Your task to perform on an android device: Open calendar and show me the third week of next month Image 0: 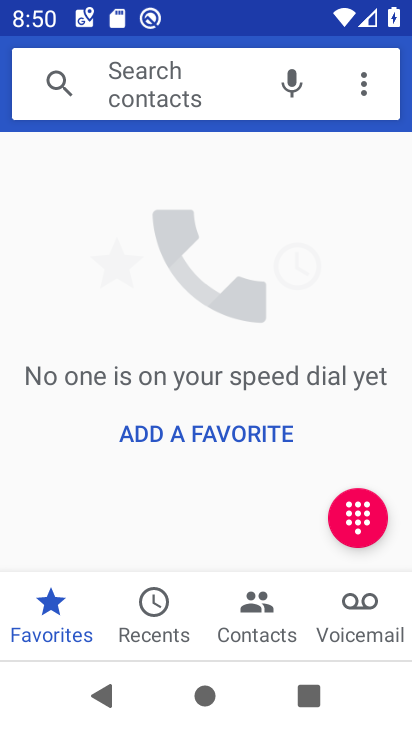
Step 0: press home button
Your task to perform on an android device: Open calendar and show me the third week of next month Image 1: 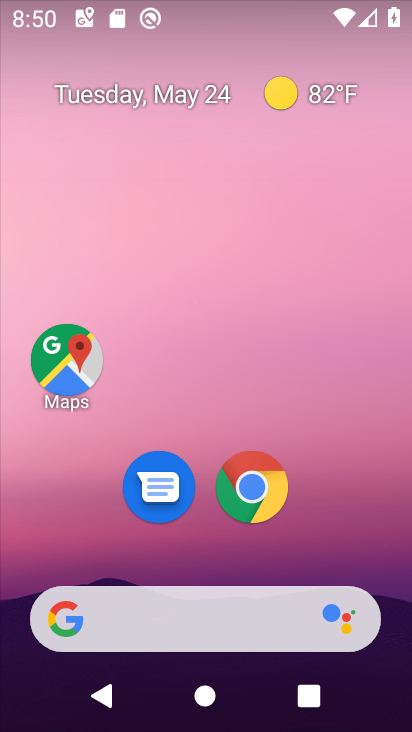
Step 1: drag from (365, 523) to (330, 81)
Your task to perform on an android device: Open calendar and show me the third week of next month Image 2: 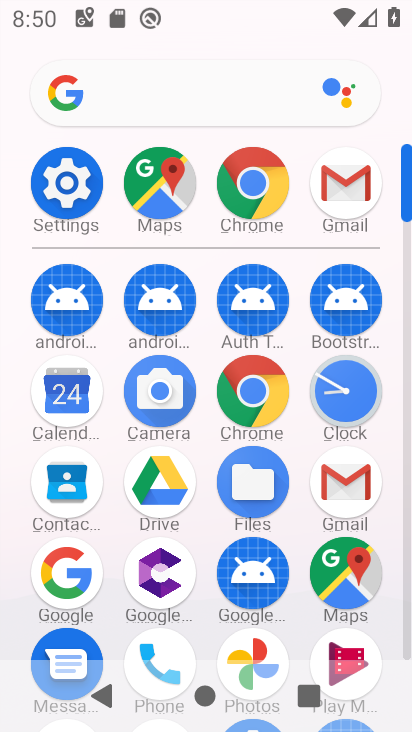
Step 2: click (66, 396)
Your task to perform on an android device: Open calendar and show me the third week of next month Image 3: 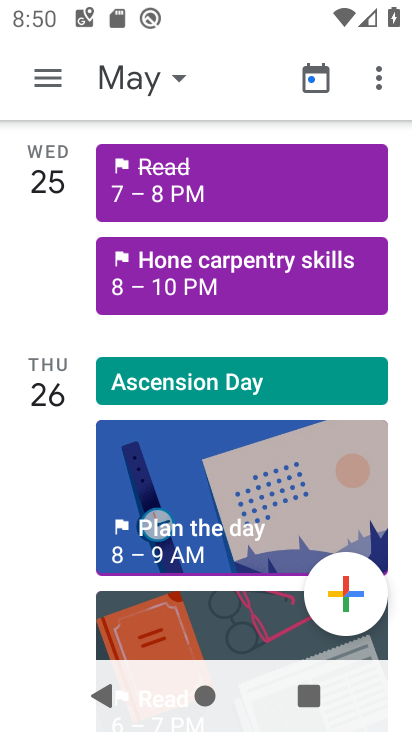
Step 3: click (117, 81)
Your task to perform on an android device: Open calendar and show me the third week of next month Image 4: 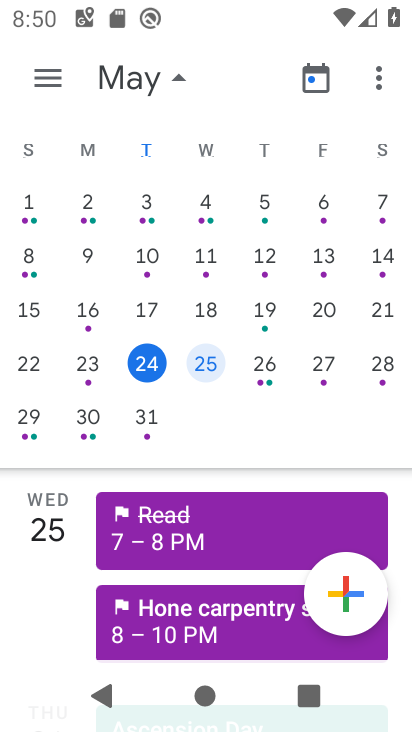
Step 4: click (152, 83)
Your task to perform on an android device: Open calendar and show me the third week of next month Image 5: 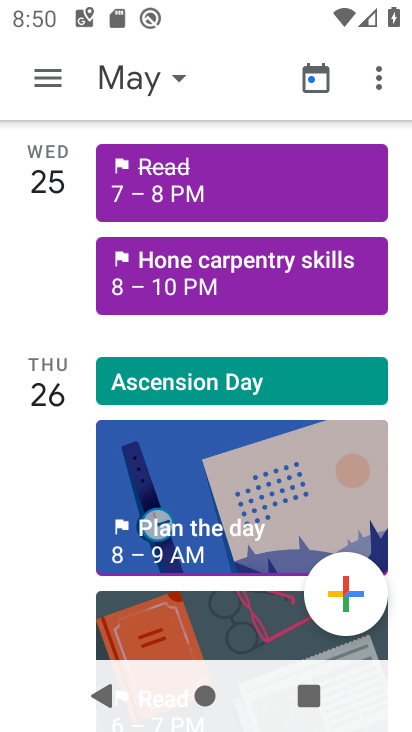
Step 5: click (132, 79)
Your task to perform on an android device: Open calendar and show me the third week of next month Image 6: 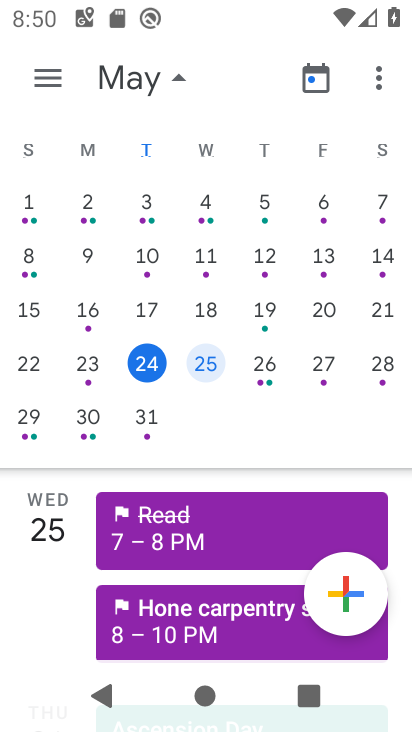
Step 6: drag from (335, 281) to (12, 264)
Your task to perform on an android device: Open calendar and show me the third week of next month Image 7: 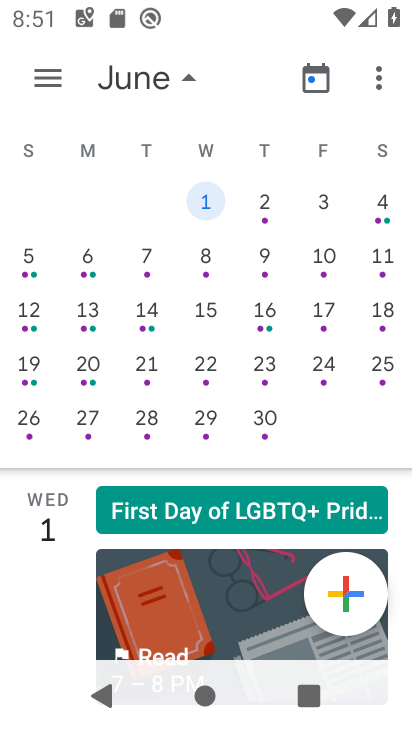
Step 7: click (32, 311)
Your task to perform on an android device: Open calendar and show me the third week of next month Image 8: 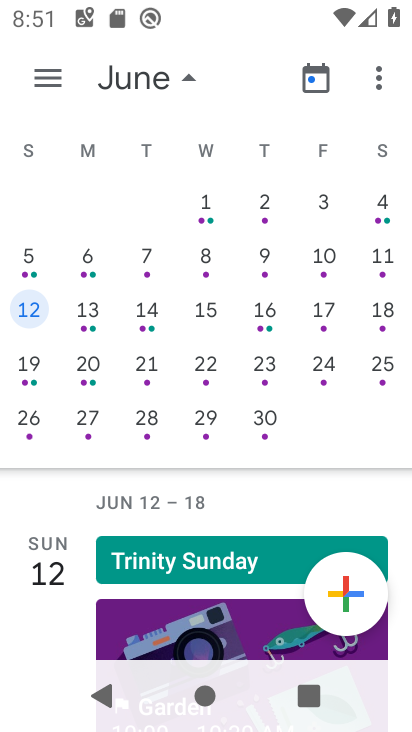
Step 8: task complete